Your task to perform on an android device: When is my next meeting? Image 0: 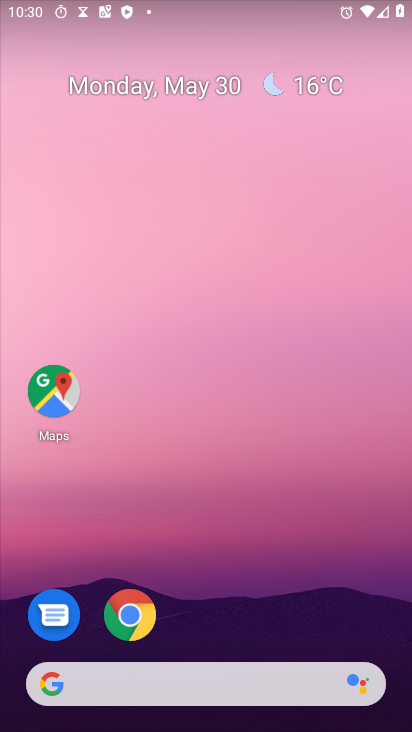
Step 0: drag from (337, 633) to (213, 0)
Your task to perform on an android device: When is my next meeting? Image 1: 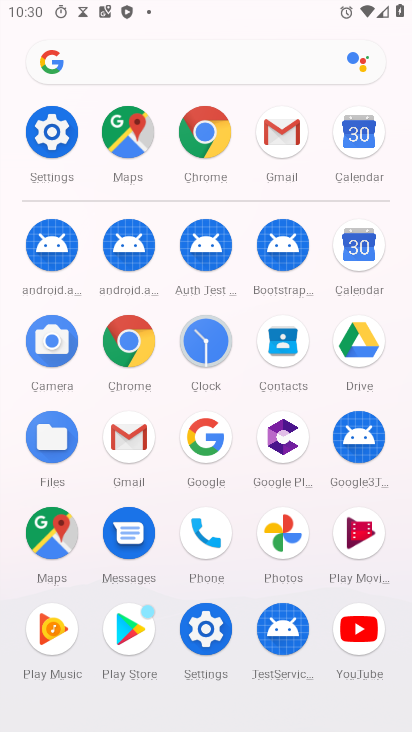
Step 1: click (349, 244)
Your task to perform on an android device: When is my next meeting? Image 2: 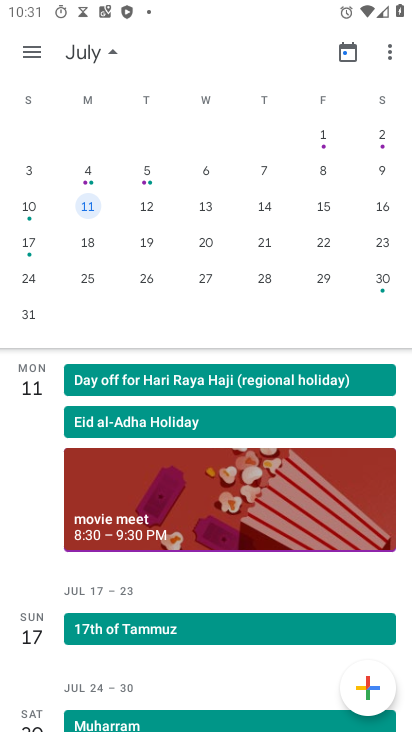
Step 2: task complete